Your task to perform on an android device: find which apps use the phone's location Image 0: 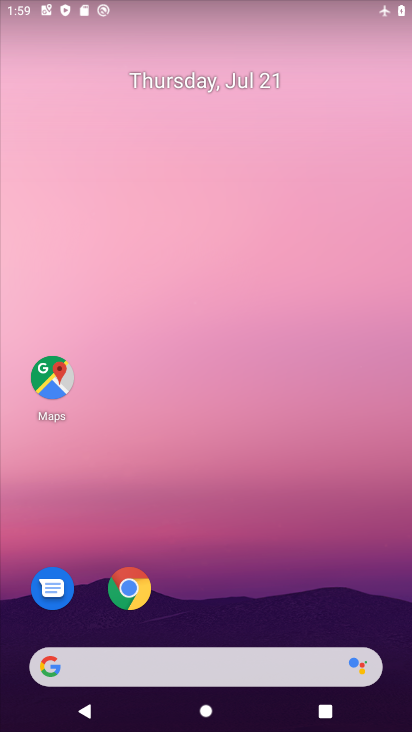
Step 0: drag from (207, 651) to (137, 114)
Your task to perform on an android device: find which apps use the phone's location Image 1: 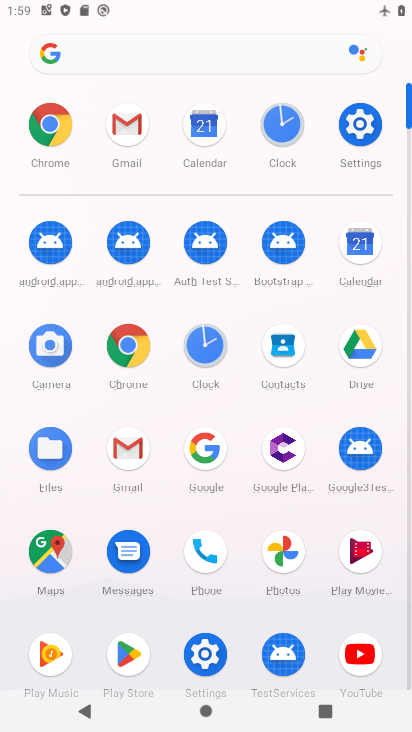
Step 1: click (366, 115)
Your task to perform on an android device: find which apps use the phone's location Image 2: 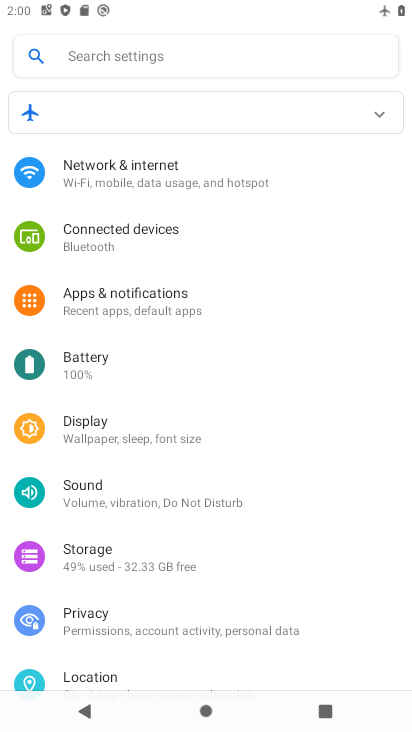
Step 2: drag from (154, 581) to (118, 144)
Your task to perform on an android device: find which apps use the phone's location Image 3: 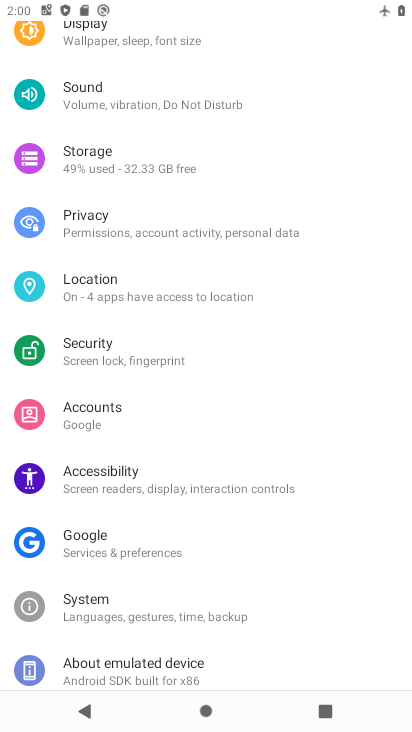
Step 3: click (95, 296)
Your task to perform on an android device: find which apps use the phone's location Image 4: 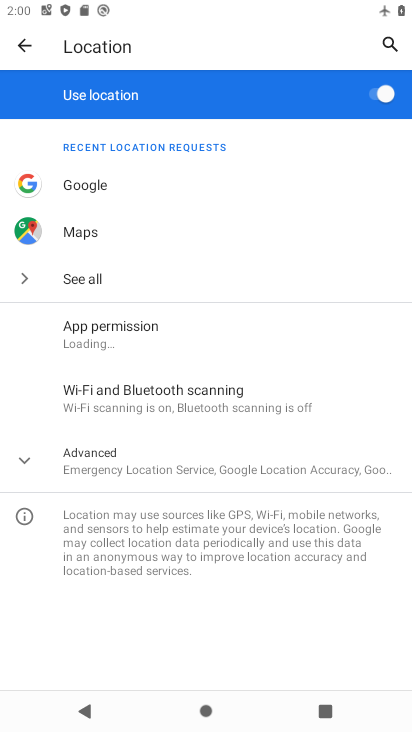
Step 4: click (72, 292)
Your task to perform on an android device: find which apps use the phone's location Image 5: 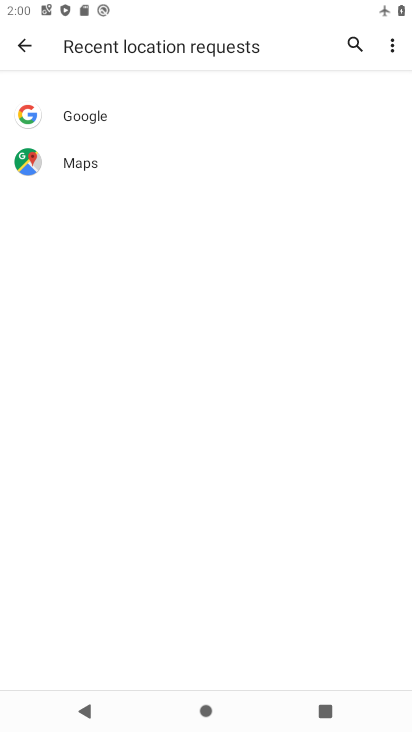
Step 5: task complete